Your task to perform on an android device: Open location settings Image 0: 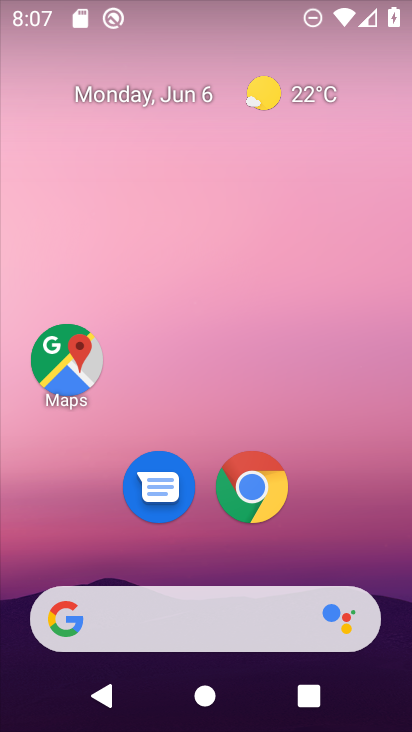
Step 0: drag from (385, 629) to (288, 88)
Your task to perform on an android device: Open location settings Image 1: 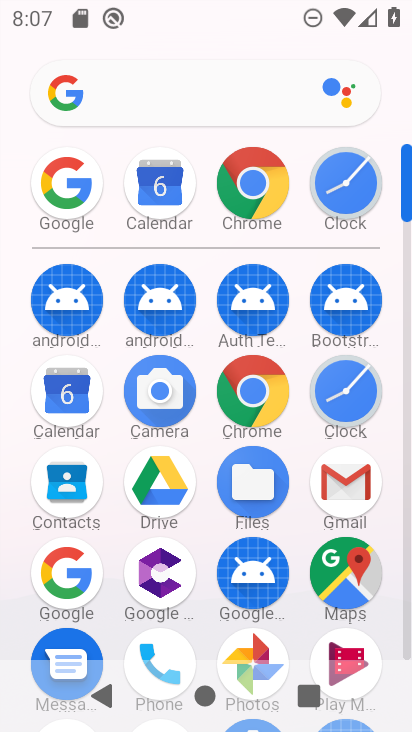
Step 1: drag from (203, 600) to (200, 176)
Your task to perform on an android device: Open location settings Image 2: 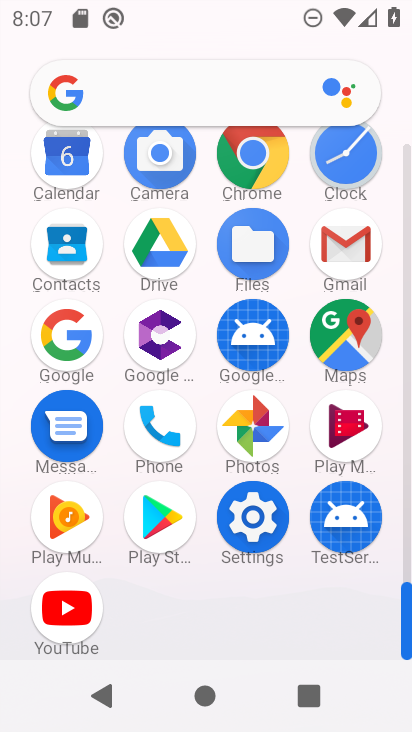
Step 2: click (270, 517)
Your task to perform on an android device: Open location settings Image 3: 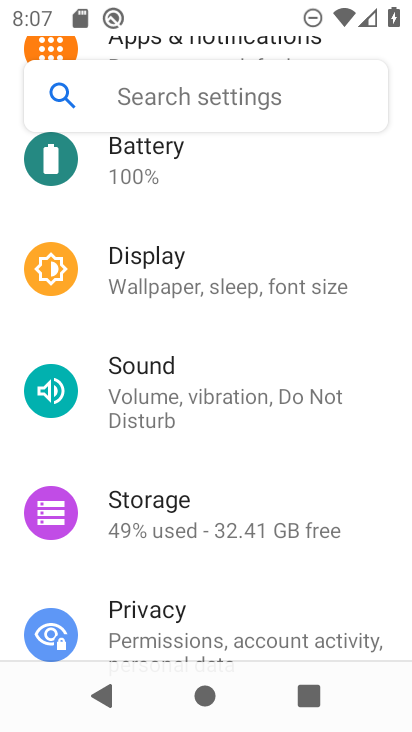
Step 3: drag from (223, 550) to (259, 184)
Your task to perform on an android device: Open location settings Image 4: 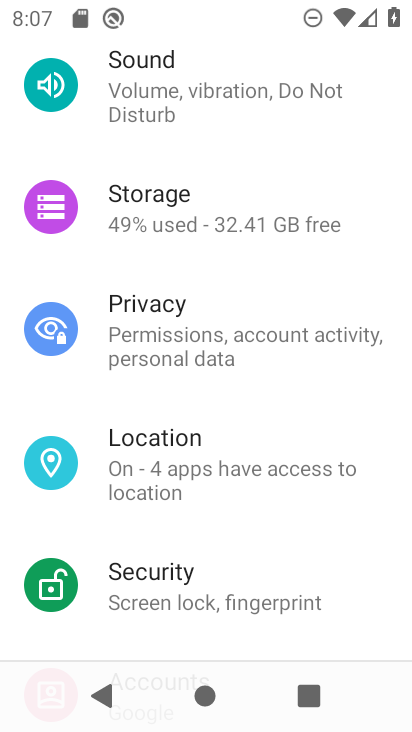
Step 4: click (190, 446)
Your task to perform on an android device: Open location settings Image 5: 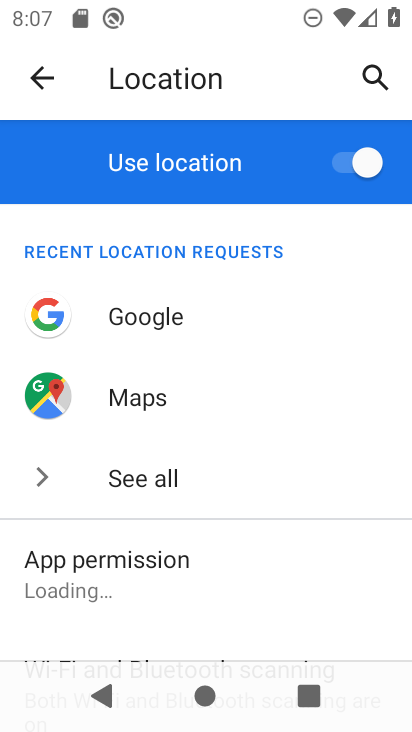
Step 5: task complete